Your task to perform on an android device: turn on priority inbox in the gmail app Image 0: 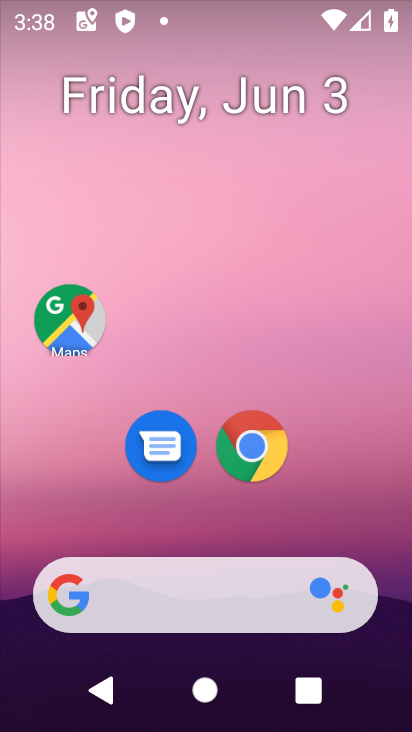
Step 0: task complete